Your task to perform on an android device: change the clock display to analog Image 0: 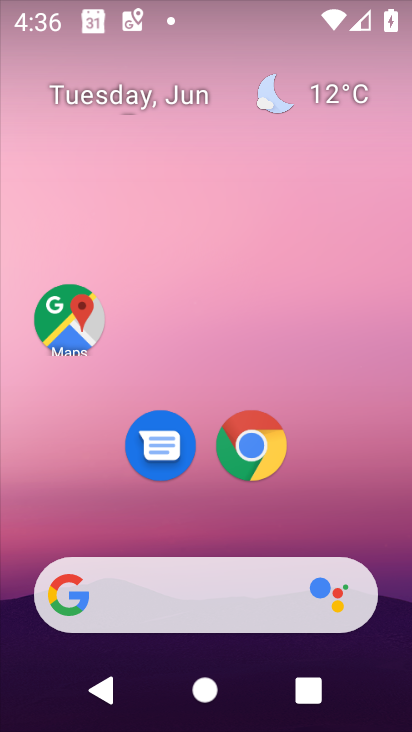
Step 0: drag from (364, 467) to (362, 22)
Your task to perform on an android device: change the clock display to analog Image 1: 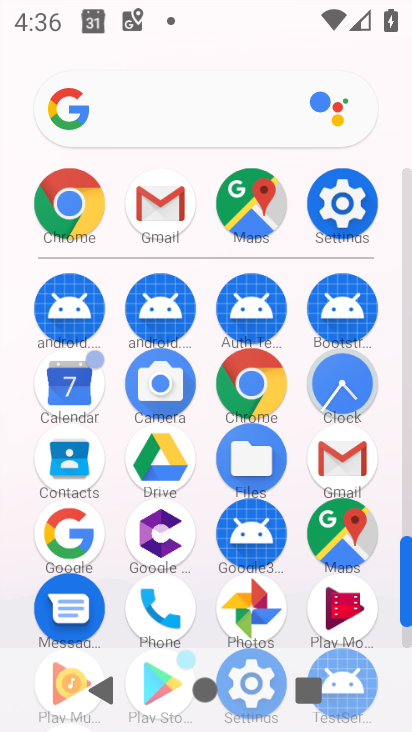
Step 1: click (348, 398)
Your task to perform on an android device: change the clock display to analog Image 2: 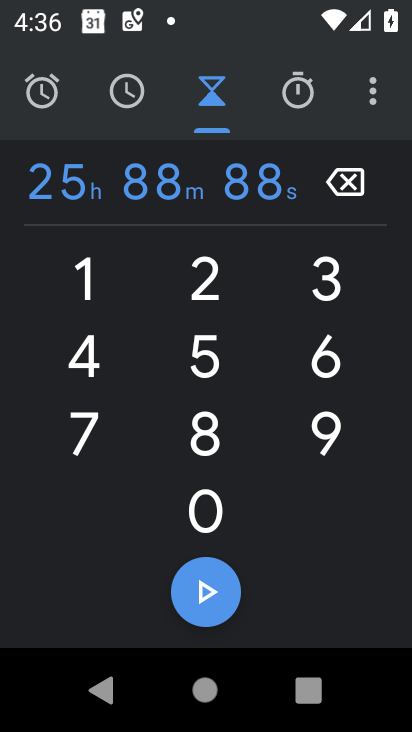
Step 2: click (398, 99)
Your task to perform on an android device: change the clock display to analog Image 3: 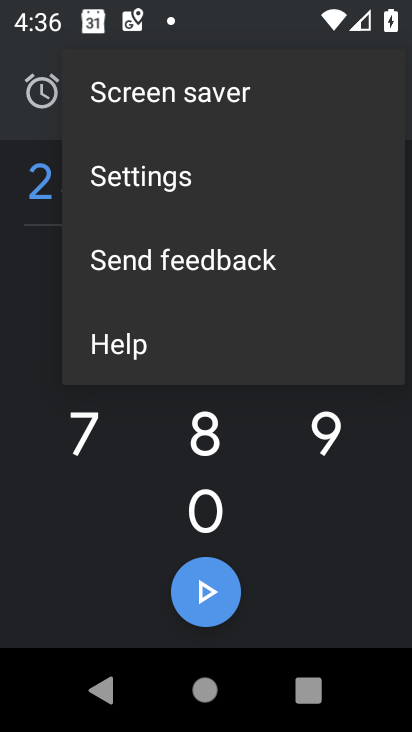
Step 3: click (192, 136)
Your task to perform on an android device: change the clock display to analog Image 4: 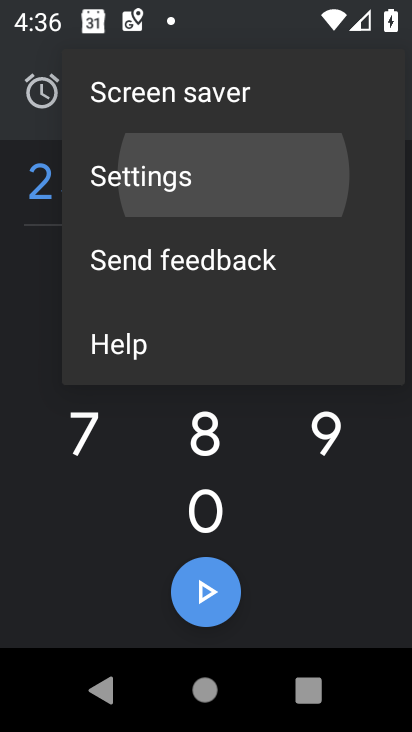
Step 4: click (165, 165)
Your task to perform on an android device: change the clock display to analog Image 5: 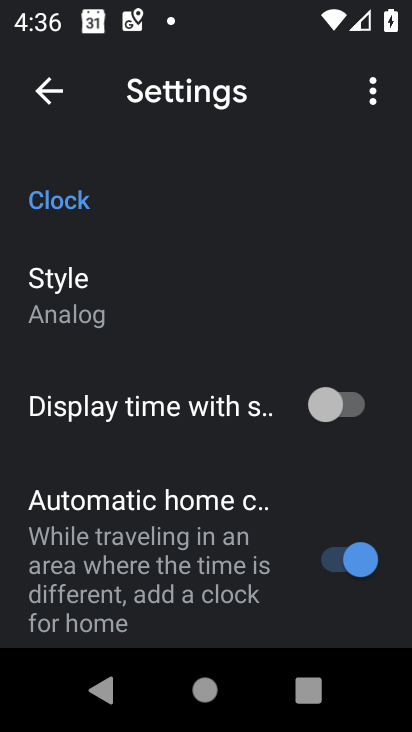
Step 5: click (43, 317)
Your task to perform on an android device: change the clock display to analog Image 6: 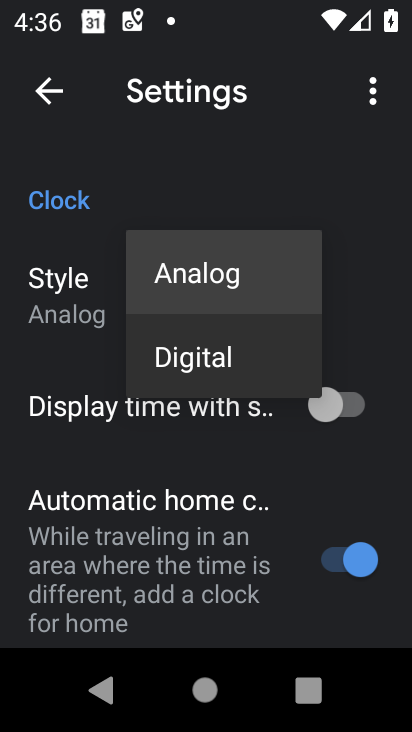
Step 6: click (212, 364)
Your task to perform on an android device: change the clock display to analog Image 7: 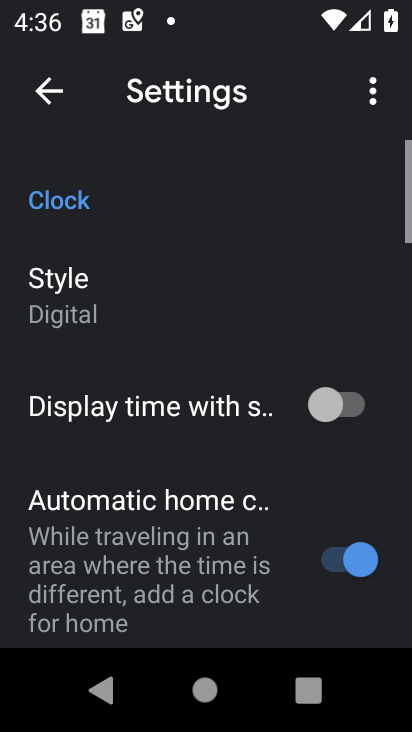
Step 7: task complete